Your task to perform on an android device: Show me the alarms in the clock app Image 0: 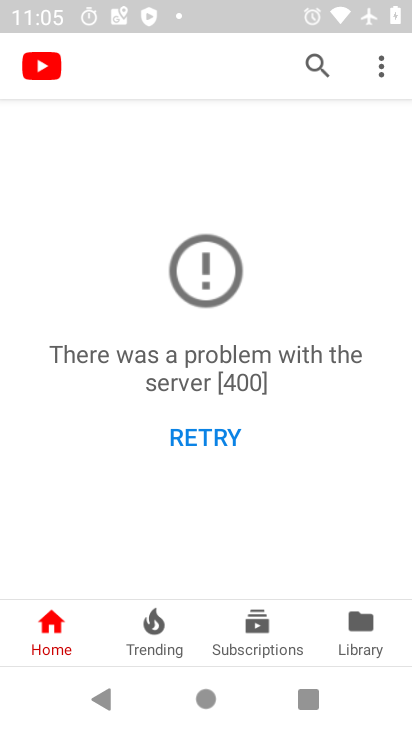
Step 0: press back button
Your task to perform on an android device: Show me the alarms in the clock app Image 1: 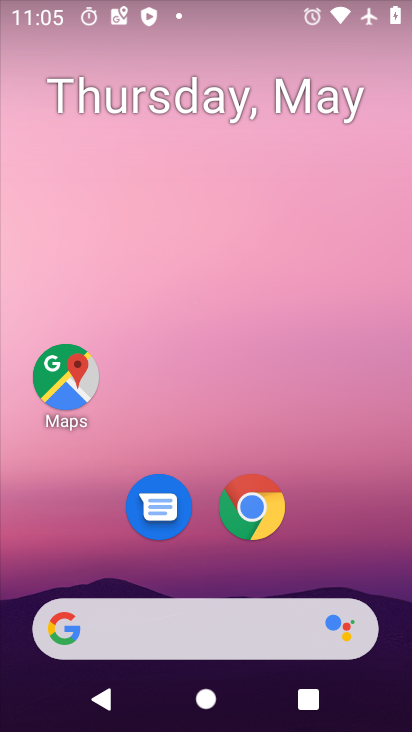
Step 1: drag from (331, 485) to (282, 80)
Your task to perform on an android device: Show me the alarms in the clock app Image 2: 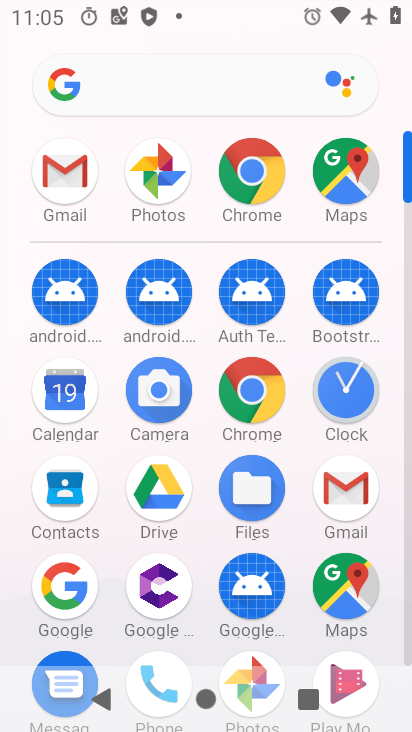
Step 2: drag from (8, 595) to (0, 274)
Your task to perform on an android device: Show me the alarms in the clock app Image 3: 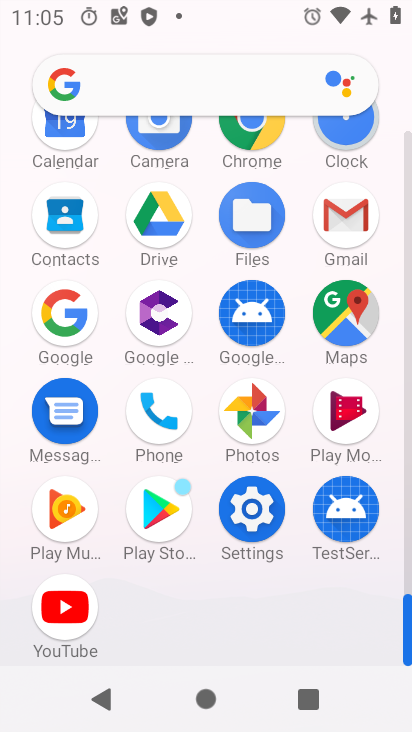
Step 3: click (346, 130)
Your task to perform on an android device: Show me the alarms in the clock app Image 4: 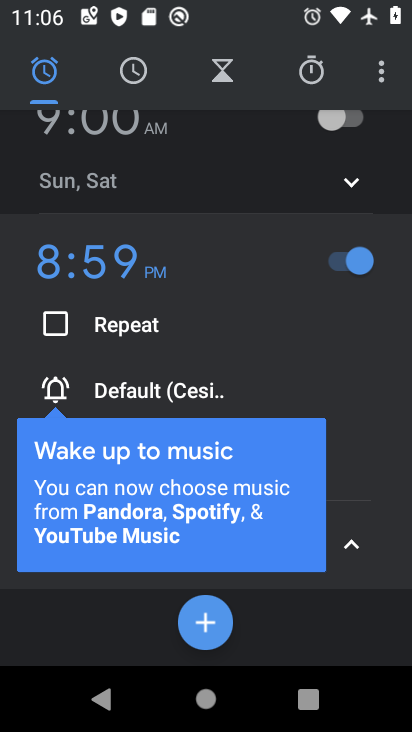
Step 4: click (134, 77)
Your task to perform on an android device: Show me the alarms in the clock app Image 5: 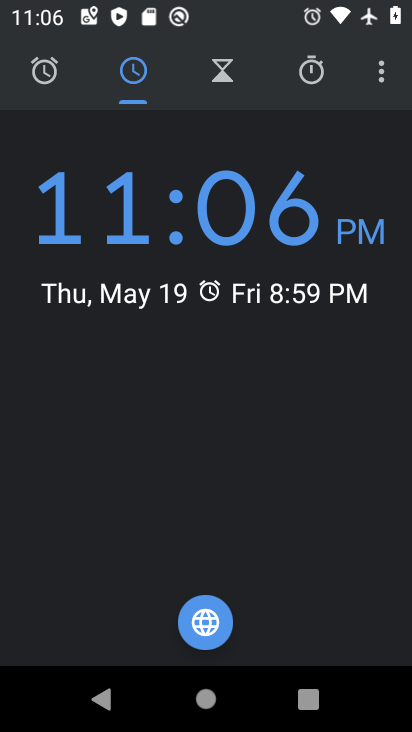
Step 5: click (41, 65)
Your task to perform on an android device: Show me the alarms in the clock app Image 6: 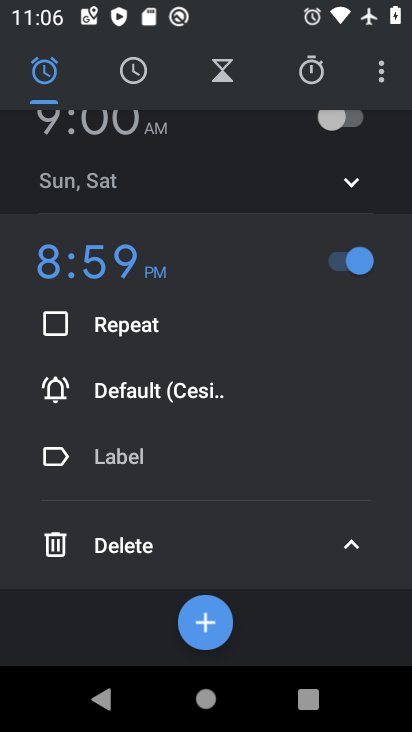
Step 6: task complete